Your task to perform on an android device: toggle notifications settings in the gmail app Image 0: 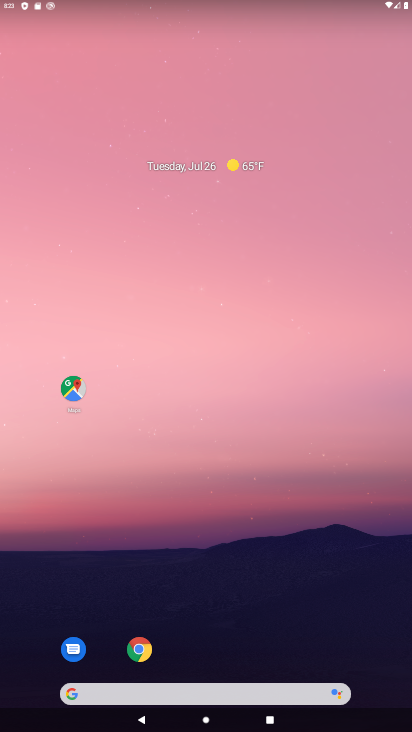
Step 0: drag from (175, 688) to (335, 17)
Your task to perform on an android device: toggle notifications settings in the gmail app Image 1: 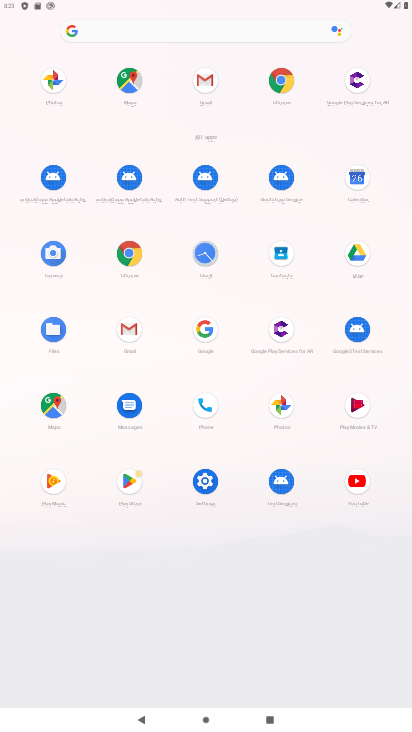
Step 1: click (203, 80)
Your task to perform on an android device: toggle notifications settings in the gmail app Image 2: 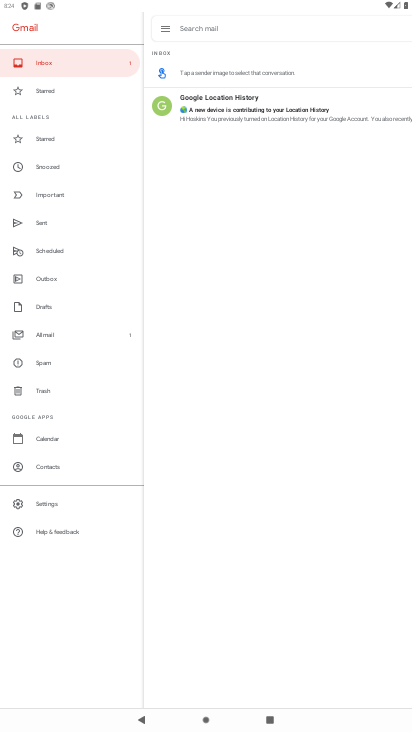
Step 2: click (45, 503)
Your task to perform on an android device: toggle notifications settings in the gmail app Image 3: 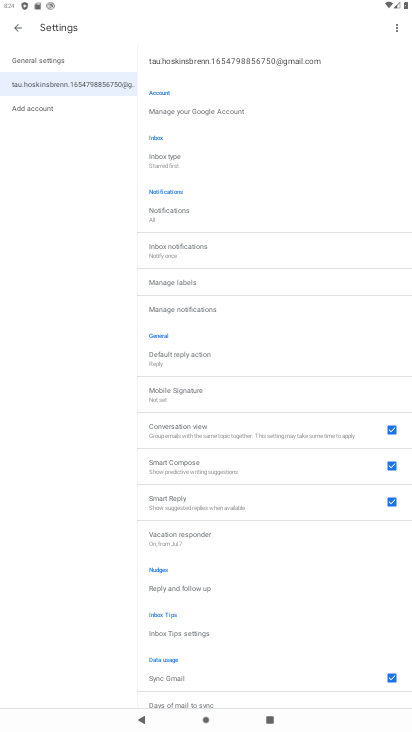
Step 3: click (191, 311)
Your task to perform on an android device: toggle notifications settings in the gmail app Image 4: 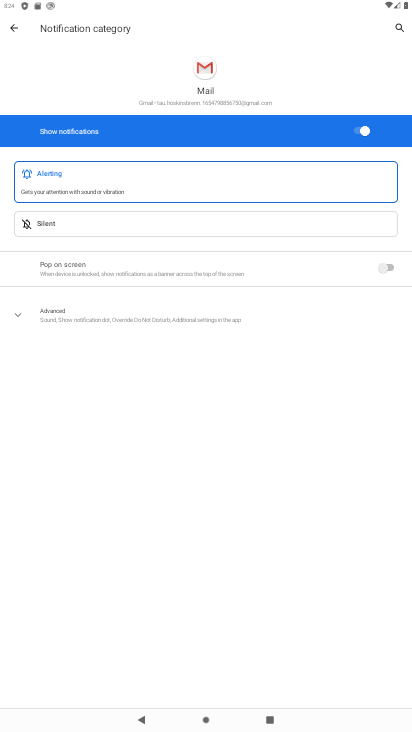
Step 4: click (362, 133)
Your task to perform on an android device: toggle notifications settings in the gmail app Image 5: 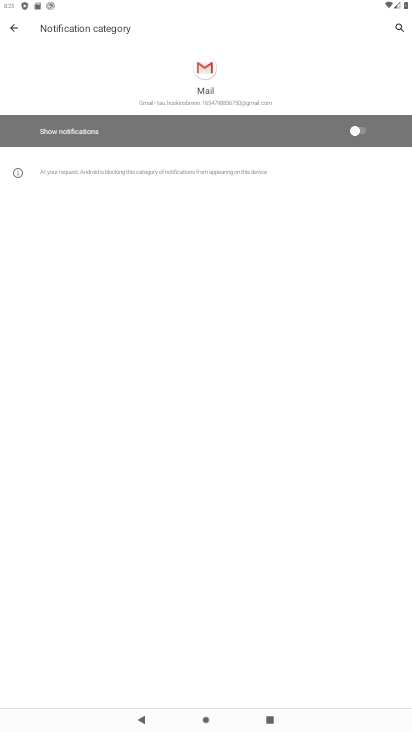
Step 5: task complete